Your task to perform on an android device: move a message to another label in the gmail app Image 0: 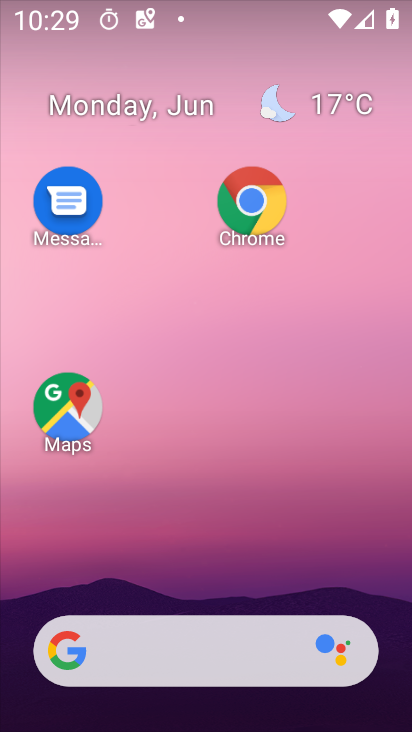
Step 0: drag from (194, 593) to (355, 6)
Your task to perform on an android device: move a message to another label in the gmail app Image 1: 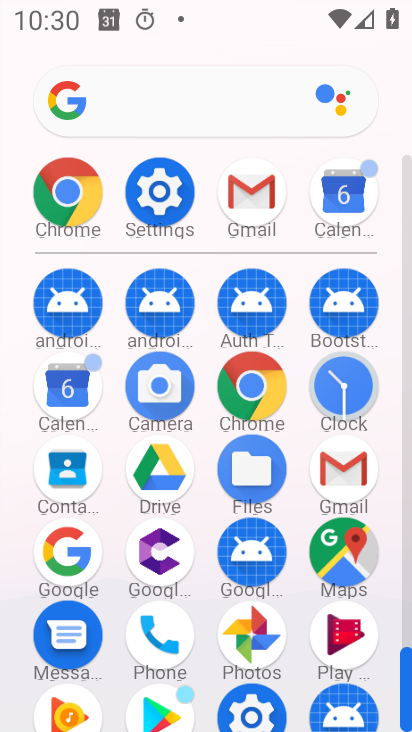
Step 1: click (337, 491)
Your task to perform on an android device: move a message to another label in the gmail app Image 2: 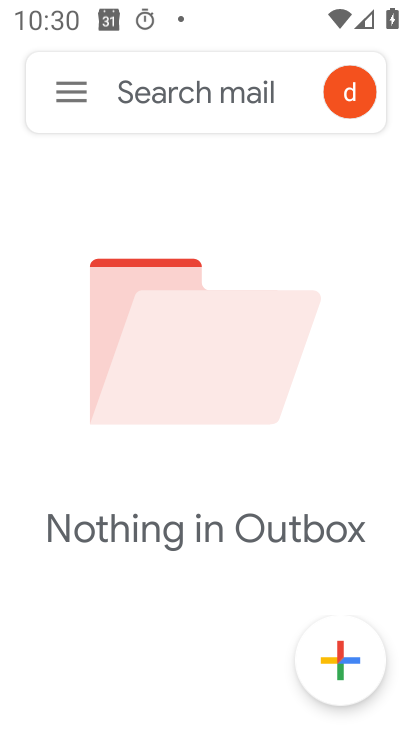
Step 2: click (57, 81)
Your task to perform on an android device: move a message to another label in the gmail app Image 3: 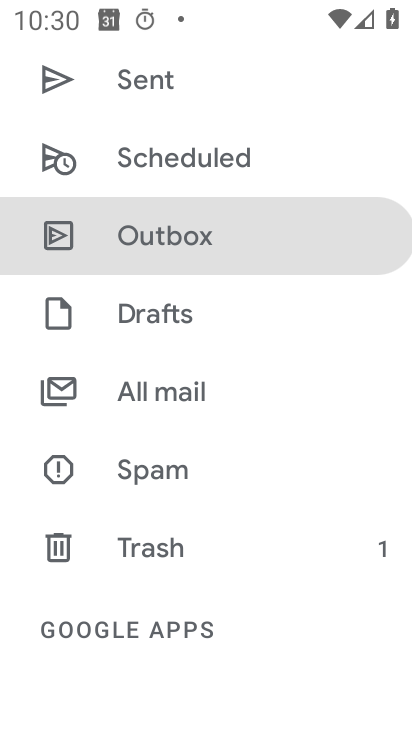
Step 3: task complete